Your task to perform on an android device: Toggle the flashlight Image 0: 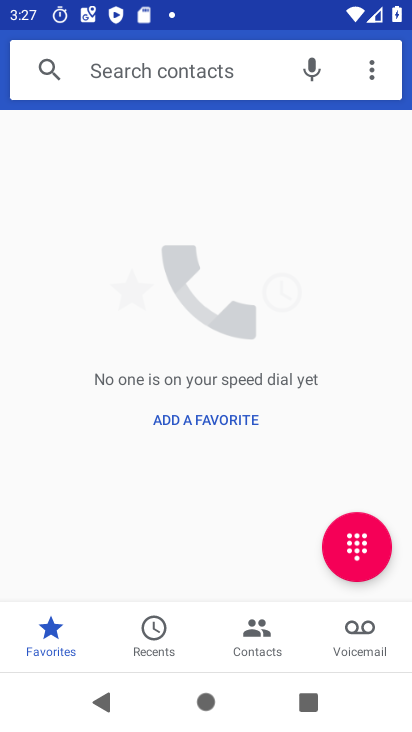
Step 0: drag from (256, 6) to (372, 416)
Your task to perform on an android device: Toggle the flashlight Image 1: 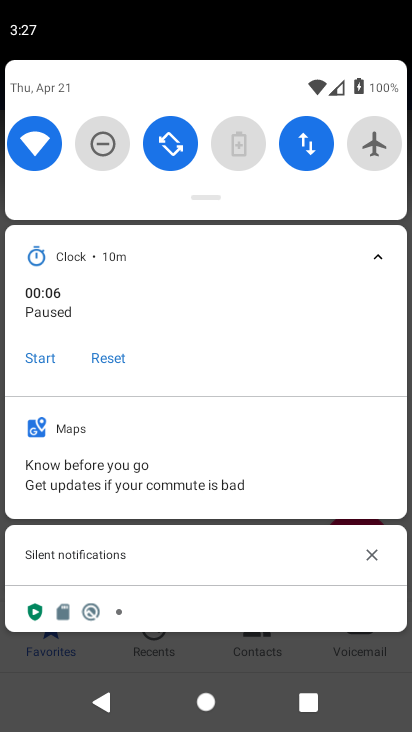
Step 1: drag from (258, 187) to (340, 463)
Your task to perform on an android device: Toggle the flashlight Image 2: 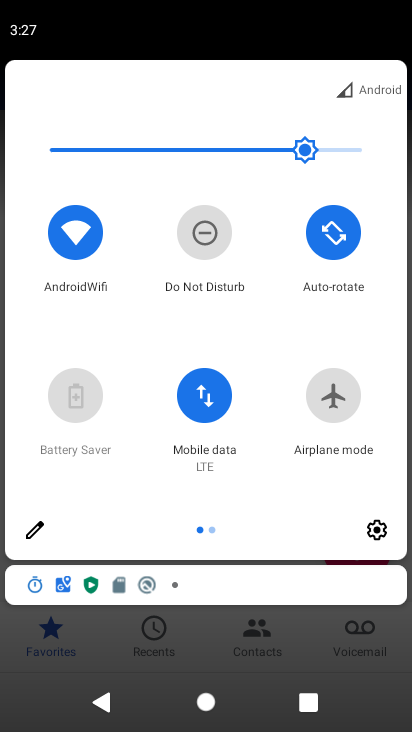
Step 2: click (340, 463)
Your task to perform on an android device: Toggle the flashlight Image 3: 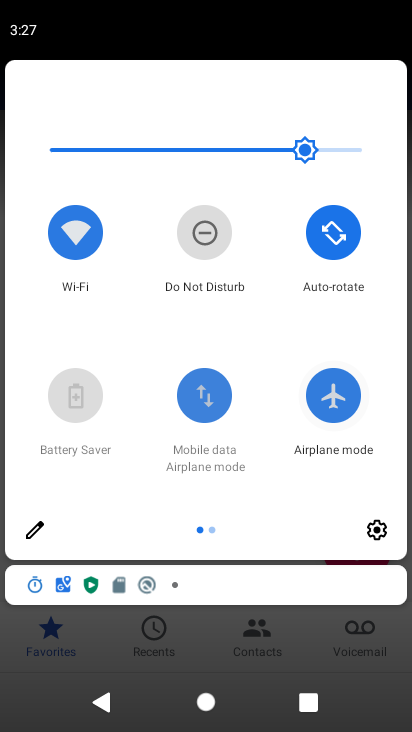
Step 3: drag from (368, 329) to (11, 376)
Your task to perform on an android device: Toggle the flashlight Image 4: 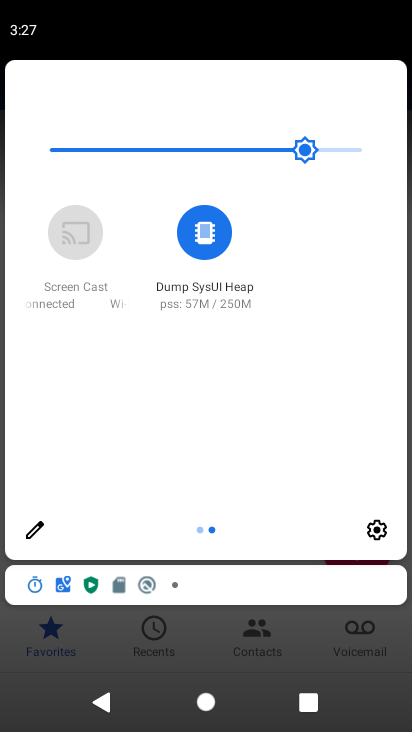
Step 4: drag from (318, 397) to (4, 397)
Your task to perform on an android device: Toggle the flashlight Image 5: 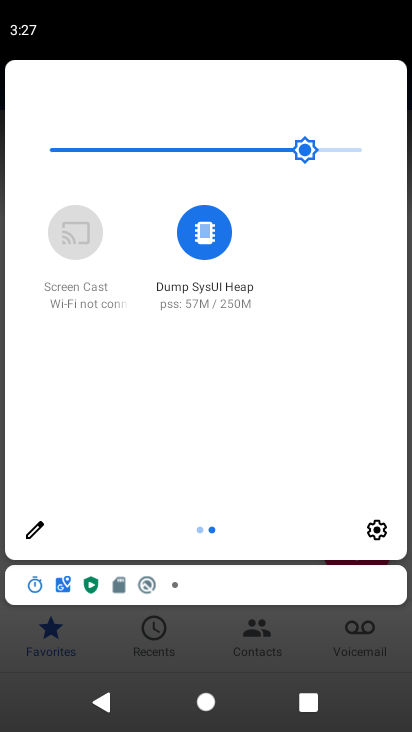
Step 5: click (158, 411)
Your task to perform on an android device: Toggle the flashlight Image 6: 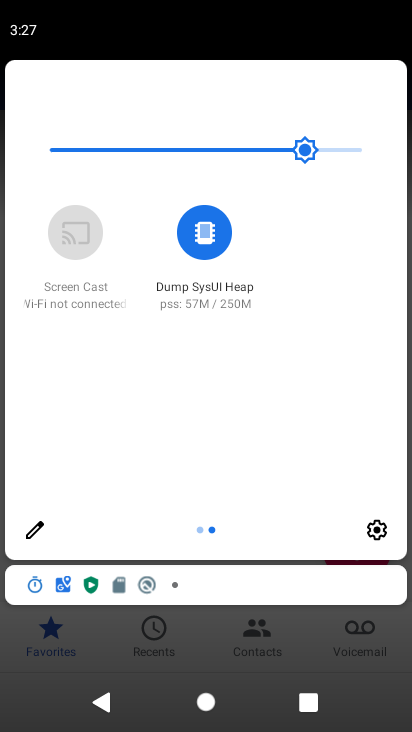
Step 6: click (25, 534)
Your task to perform on an android device: Toggle the flashlight Image 7: 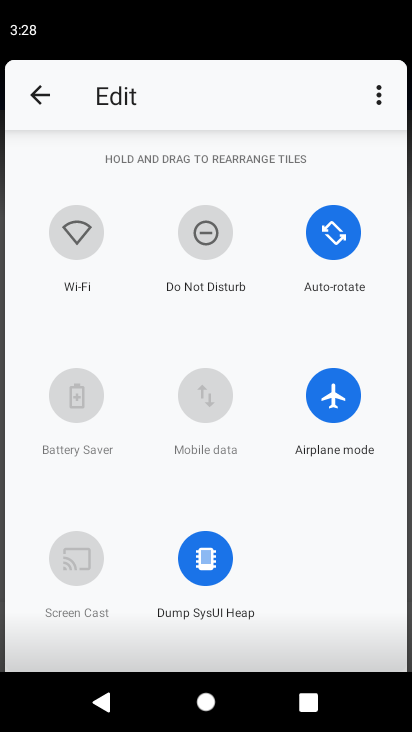
Step 7: drag from (170, 614) to (176, 280)
Your task to perform on an android device: Toggle the flashlight Image 8: 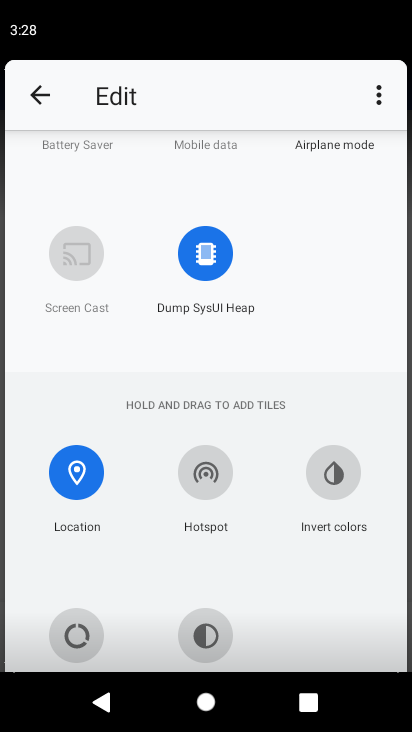
Step 8: drag from (165, 539) to (169, 298)
Your task to perform on an android device: Toggle the flashlight Image 9: 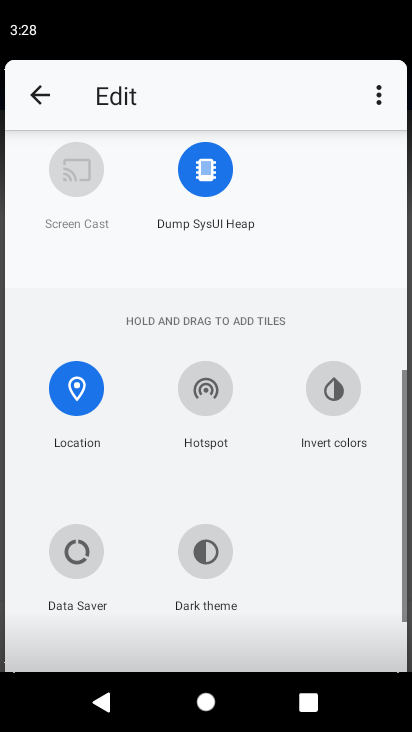
Step 9: click (166, 300)
Your task to perform on an android device: Toggle the flashlight Image 10: 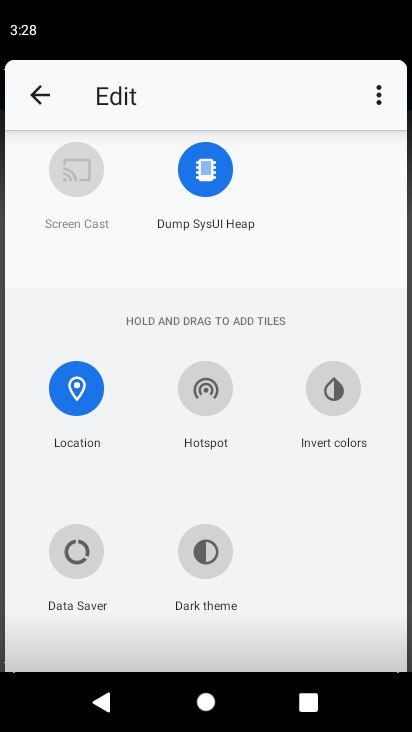
Step 10: task complete